Your task to perform on an android device: Open Wikipedia Image 0: 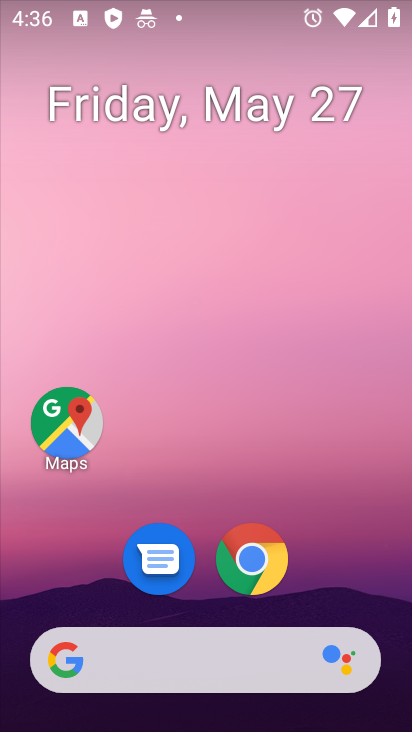
Step 0: drag from (221, 630) to (182, 37)
Your task to perform on an android device: Open Wikipedia Image 1: 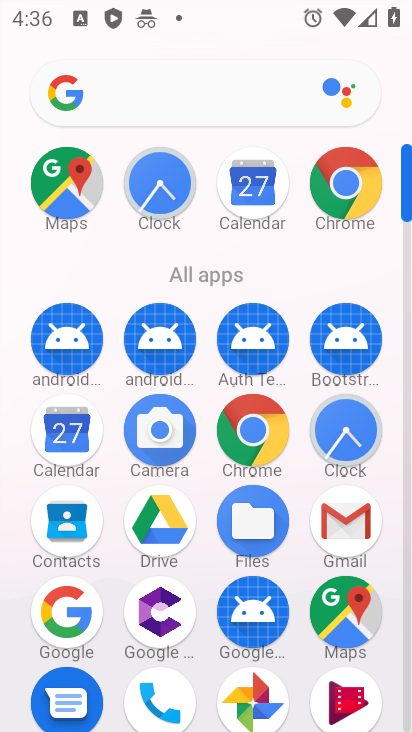
Step 1: click (266, 442)
Your task to perform on an android device: Open Wikipedia Image 2: 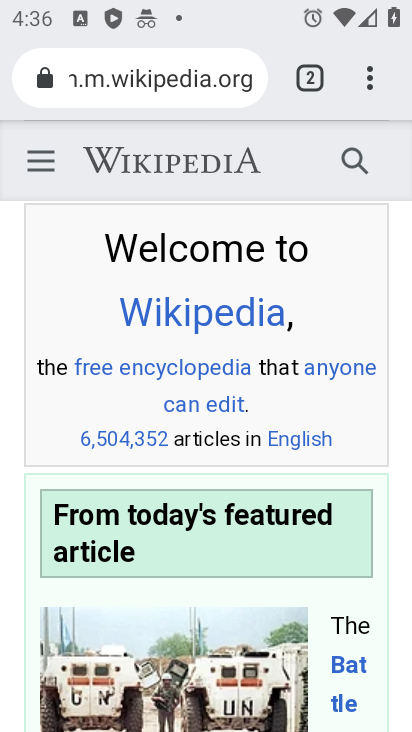
Step 2: task complete